Your task to perform on an android device: change the clock display to digital Image 0: 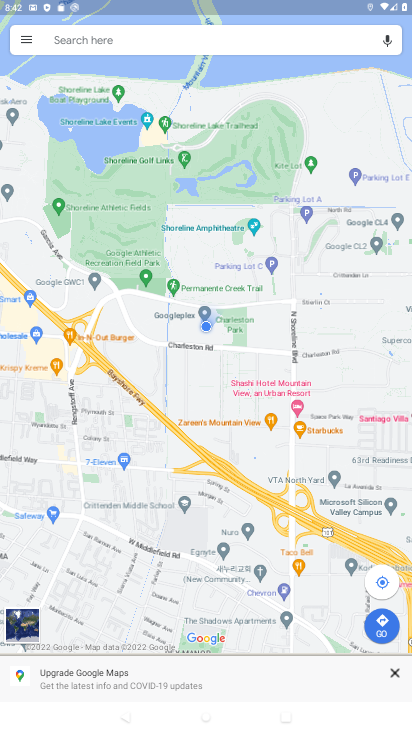
Step 0: press home button
Your task to perform on an android device: change the clock display to digital Image 1: 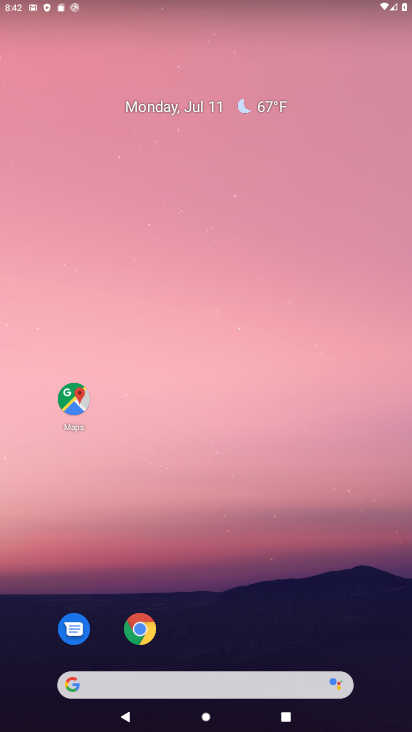
Step 1: drag from (309, 599) to (309, 80)
Your task to perform on an android device: change the clock display to digital Image 2: 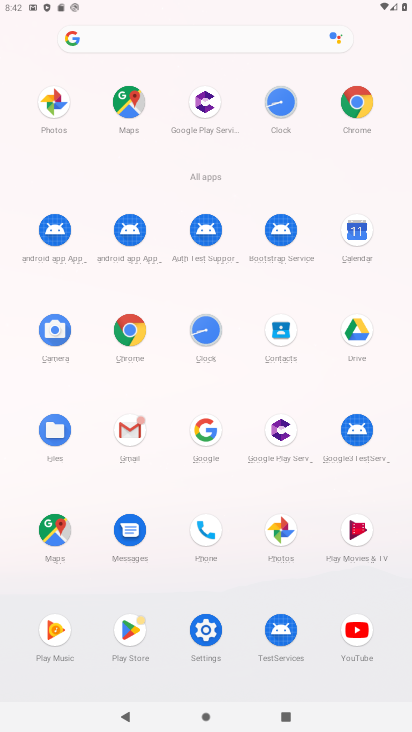
Step 2: click (218, 328)
Your task to perform on an android device: change the clock display to digital Image 3: 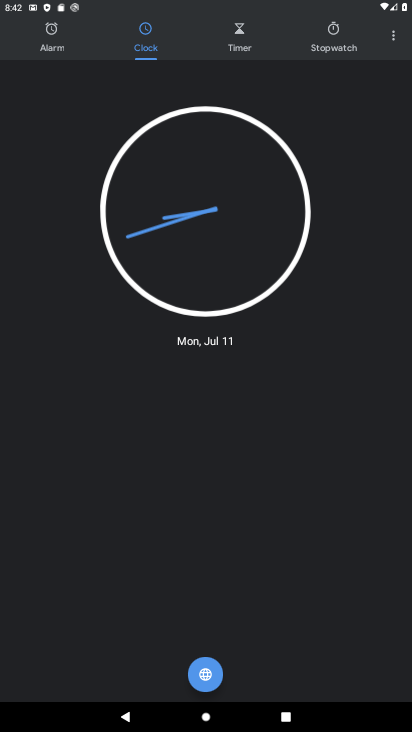
Step 3: click (388, 33)
Your task to perform on an android device: change the clock display to digital Image 4: 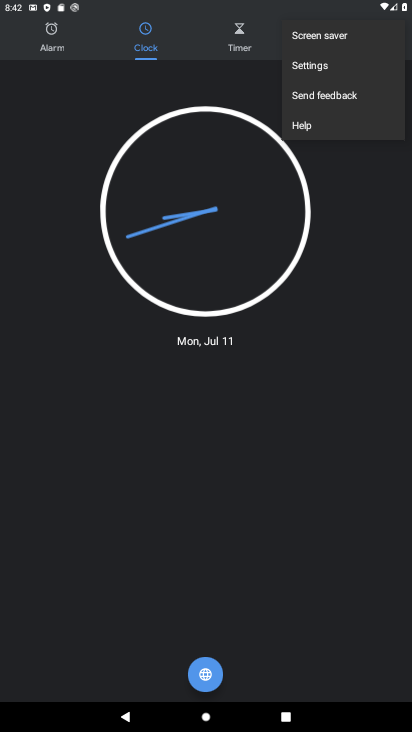
Step 4: click (318, 67)
Your task to perform on an android device: change the clock display to digital Image 5: 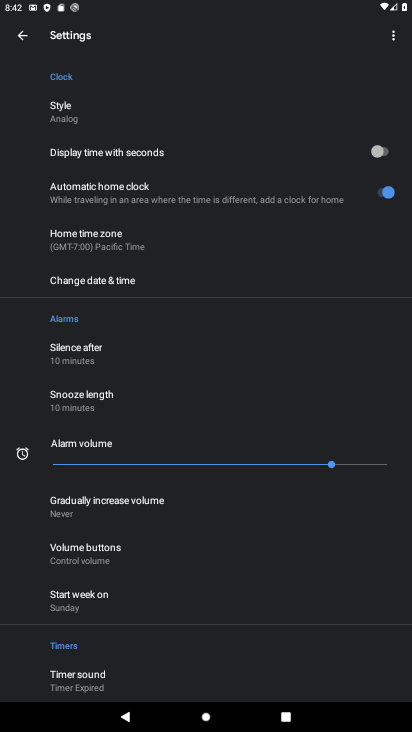
Step 5: click (64, 112)
Your task to perform on an android device: change the clock display to digital Image 6: 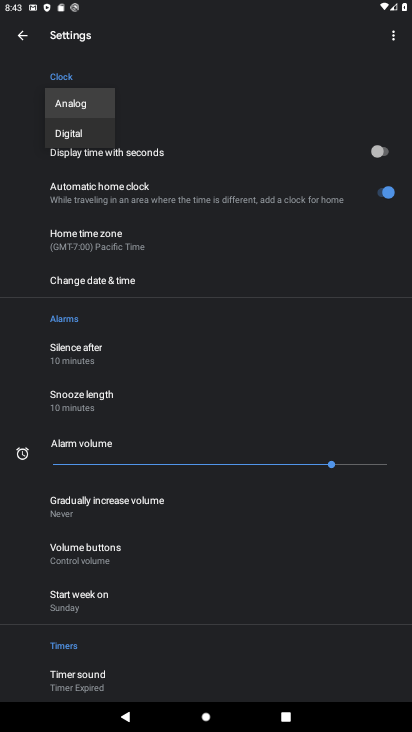
Step 6: click (68, 133)
Your task to perform on an android device: change the clock display to digital Image 7: 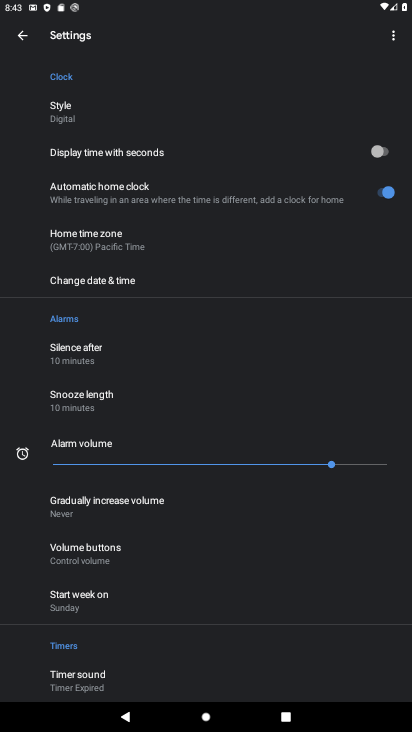
Step 7: task complete